Your task to perform on an android device: check out phone information Image 0: 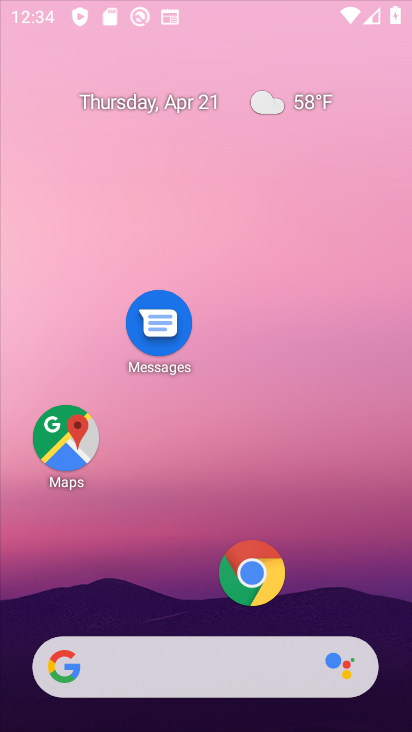
Step 0: click (388, 445)
Your task to perform on an android device: check out phone information Image 1: 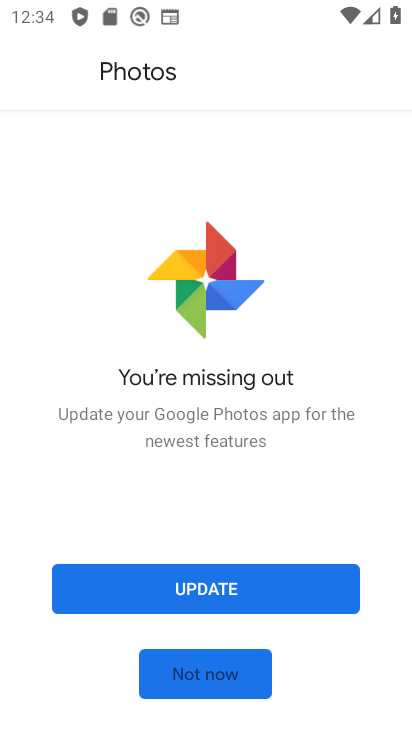
Step 1: press home button
Your task to perform on an android device: check out phone information Image 2: 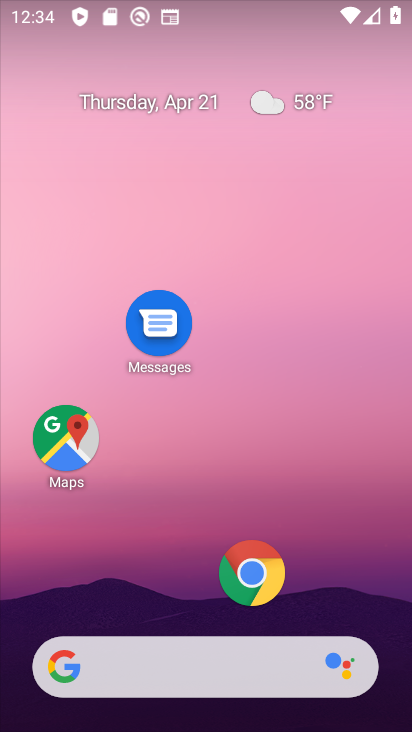
Step 2: drag from (166, 539) to (199, 9)
Your task to perform on an android device: check out phone information Image 3: 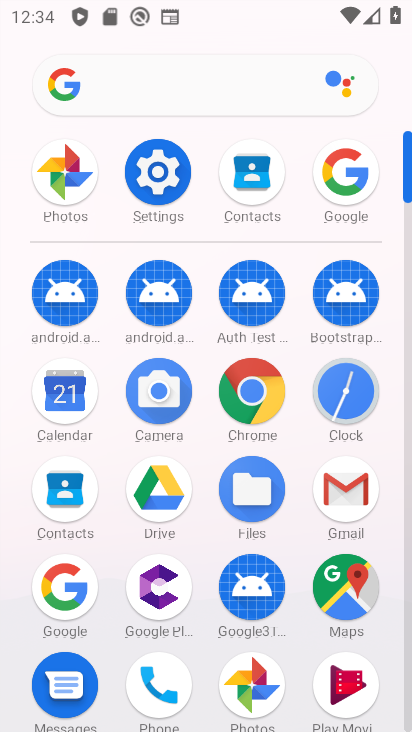
Step 3: click (163, 176)
Your task to perform on an android device: check out phone information Image 4: 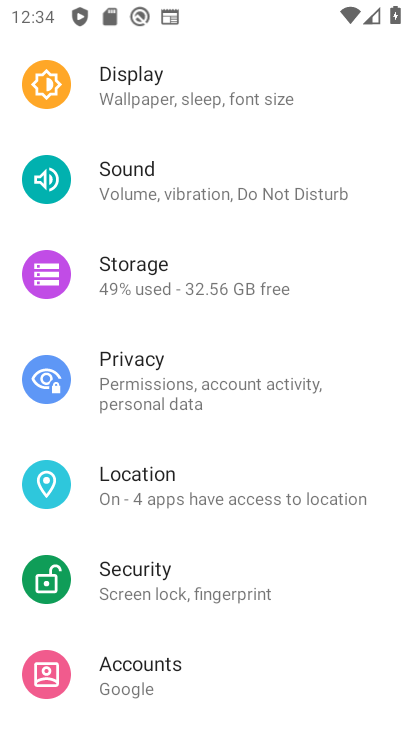
Step 4: drag from (263, 704) to (292, 56)
Your task to perform on an android device: check out phone information Image 5: 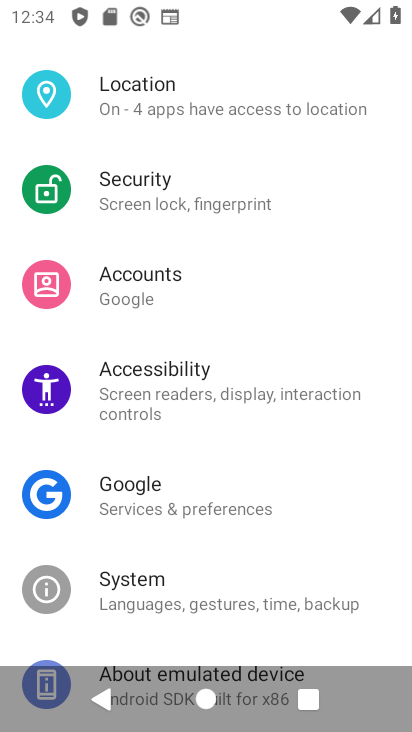
Step 5: drag from (195, 626) to (207, 407)
Your task to perform on an android device: check out phone information Image 6: 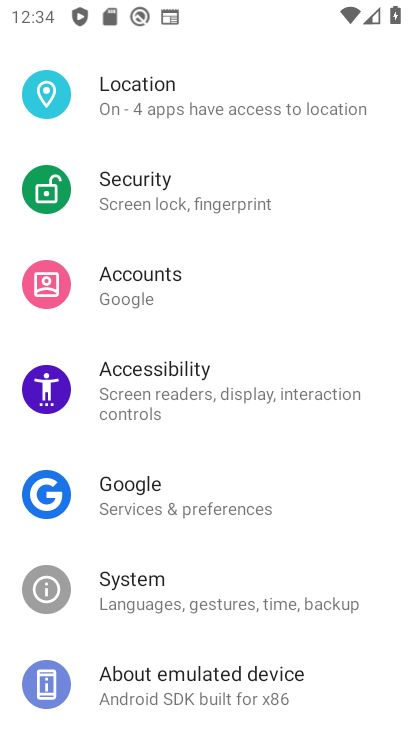
Step 6: click (158, 686)
Your task to perform on an android device: check out phone information Image 7: 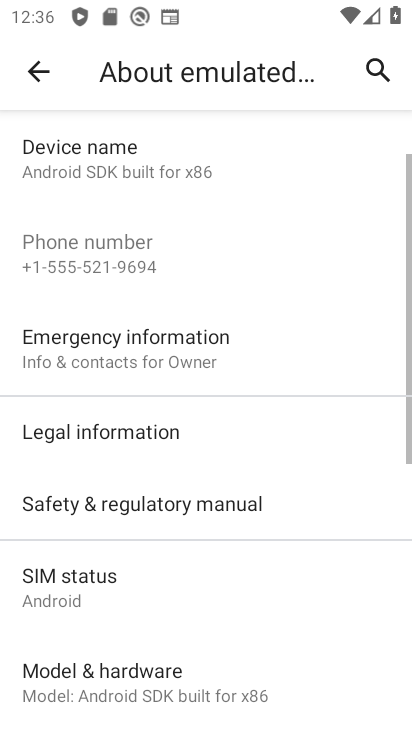
Step 7: task complete